Your task to perform on an android device: What's the weather? Image 0: 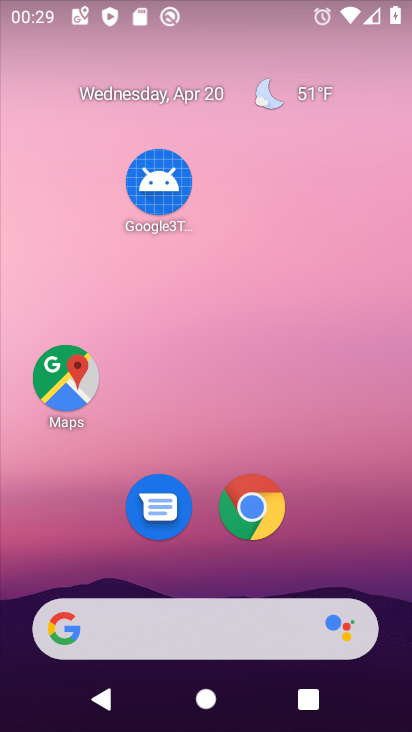
Step 0: click (271, 94)
Your task to perform on an android device: What's the weather? Image 1: 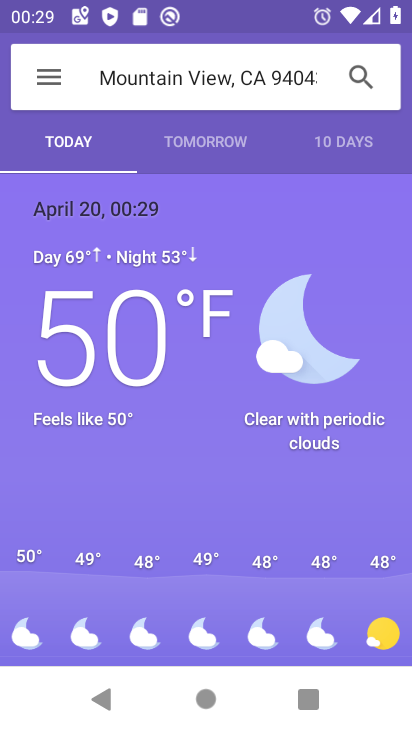
Step 1: task complete